Your task to perform on an android device: turn on sleep mode Image 0: 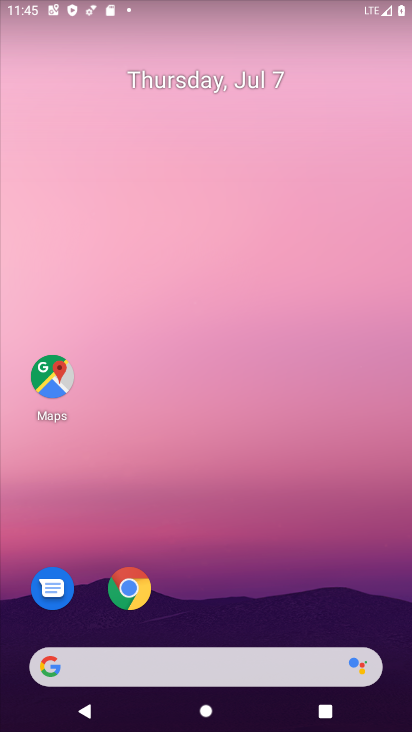
Step 0: drag from (202, 620) to (243, 38)
Your task to perform on an android device: turn on sleep mode Image 1: 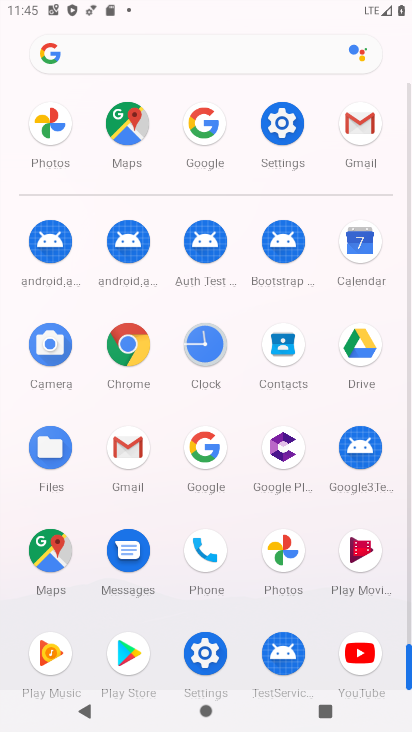
Step 1: click (287, 116)
Your task to perform on an android device: turn on sleep mode Image 2: 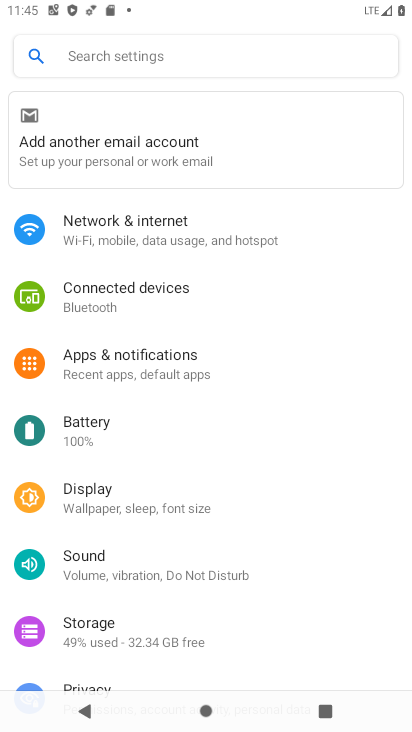
Step 2: click (104, 490)
Your task to perform on an android device: turn on sleep mode Image 3: 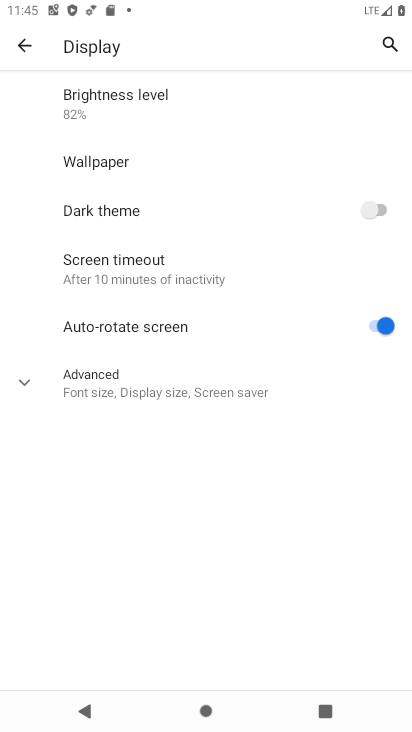
Step 3: click (136, 251)
Your task to perform on an android device: turn on sleep mode Image 4: 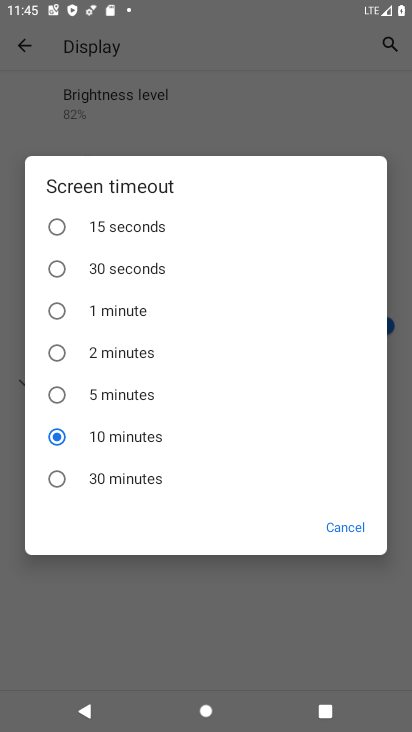
Step 4: click (63, 391)
Your task to perform on an android device: turn on sleep mode Image 5: 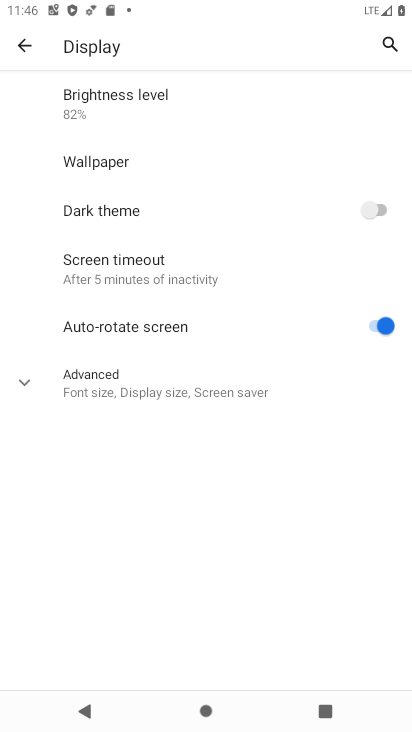
Step 5: task complete